Your task to perform on an android device: Toggle the flashlight Image 0: 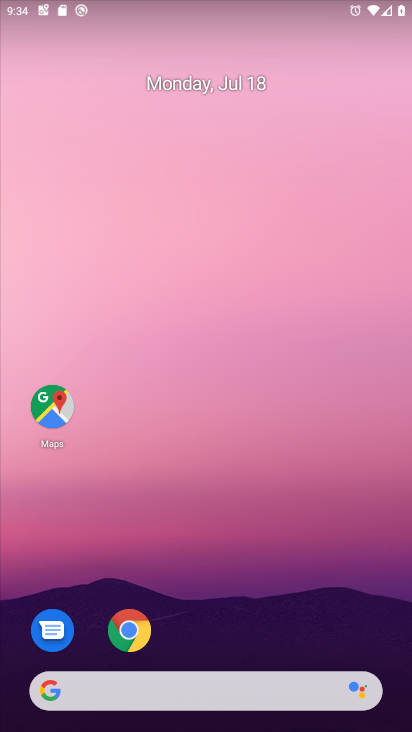
Step 0: drag from (246, 619) to (240, 217)
Your task to perform on an android device: Toggle the flashlight Image 1: 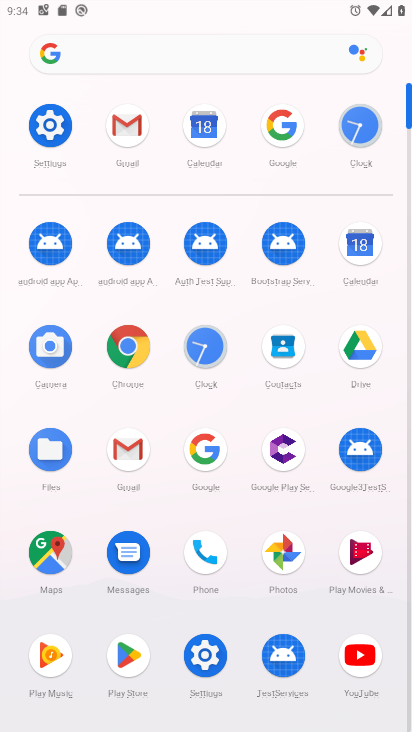
Step 1: click (45, 145)
Your task to perform on an android device: Toggle the flashlight Image 2: 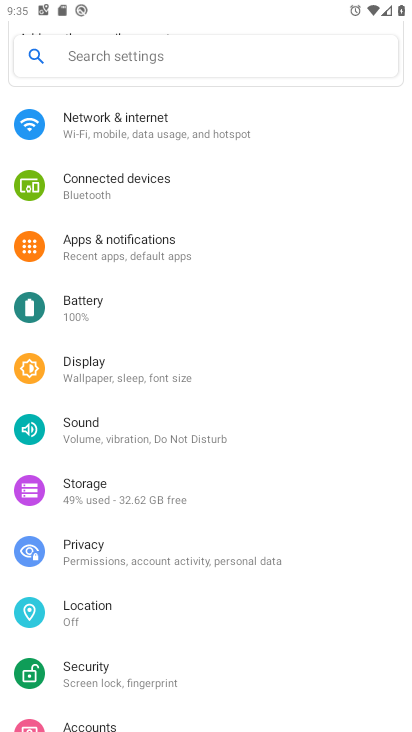
Step 2: task complete